Your task to perform on an android device: turn on location history Image 0: 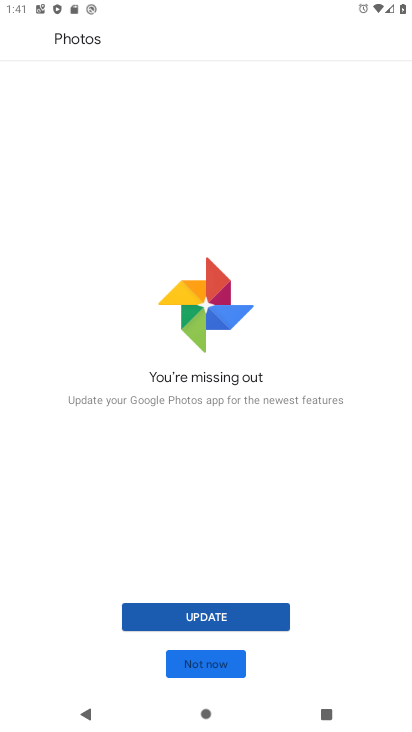
Step 0: press home button
Your task to perform on an android device: turn on location history Image 1: 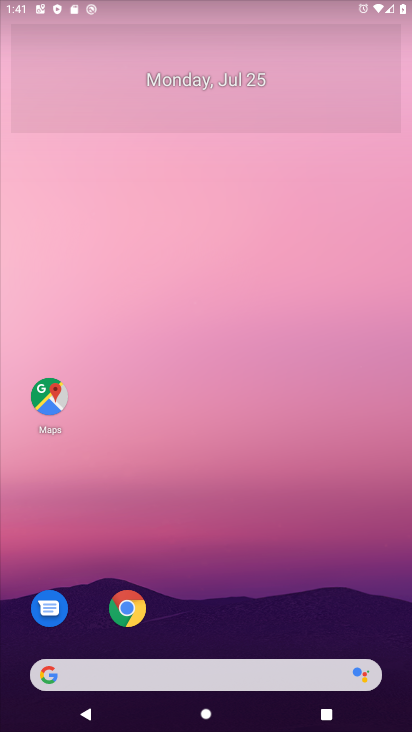
Step 1: drag from (330, 601) to (295, 28)
Your task to perform on an android device: turn on location history Image 2: 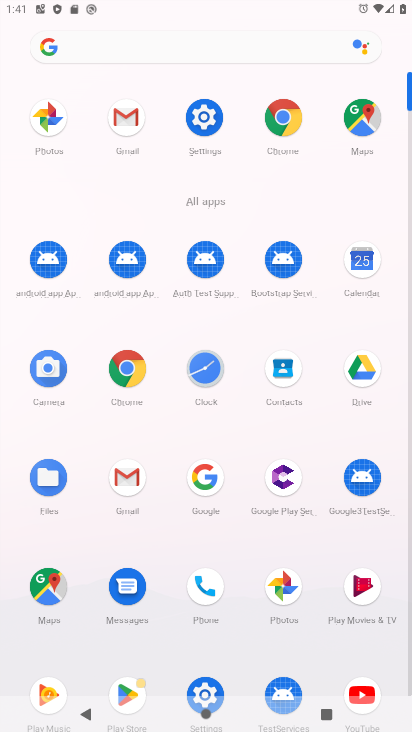
Step 2: click (202, 119)
Your task to perform on an android device: turn on location history Image 3: 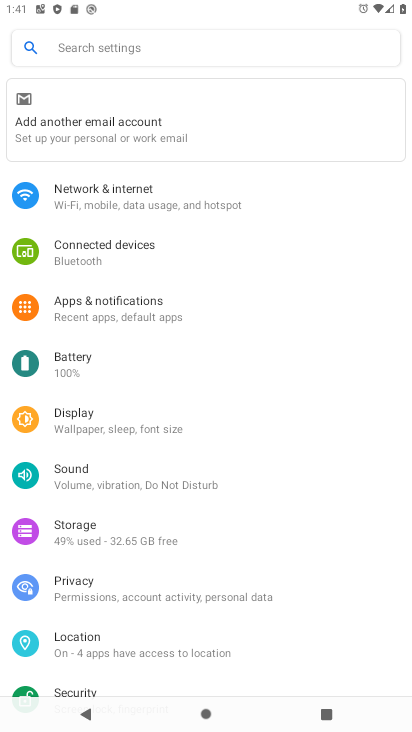
Step 3: click (161, 644)
Your task to perform on an android device: turn on location history Image 4: 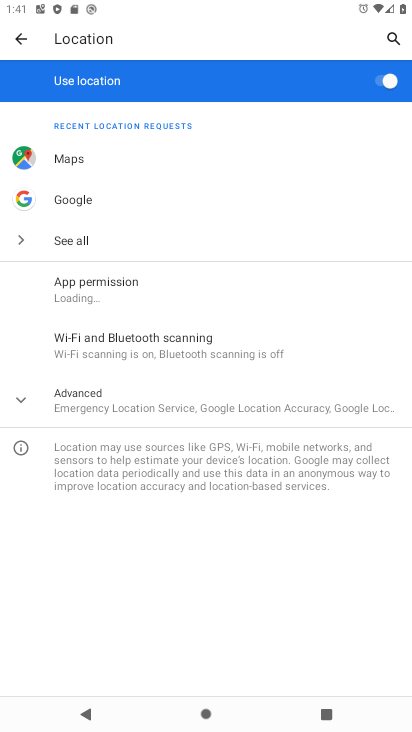
Step 4: click (113, 404)
Your task to perform on an android device: turn on location history Image 5: 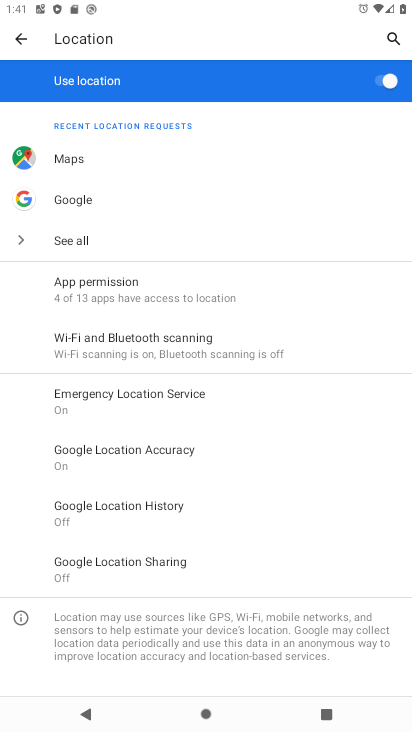
Step 5: click (161, 503)
Your task to perform on an android device: turn on location history Image 6: 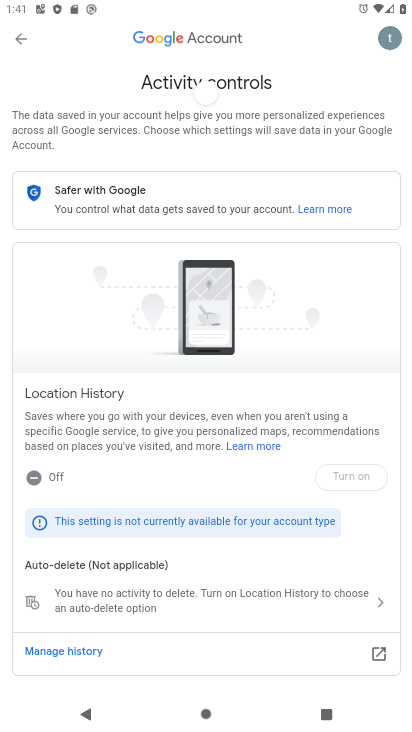
Step 6: click (345, 476)
Your task to perform on an android device: turn on location history Image 7: 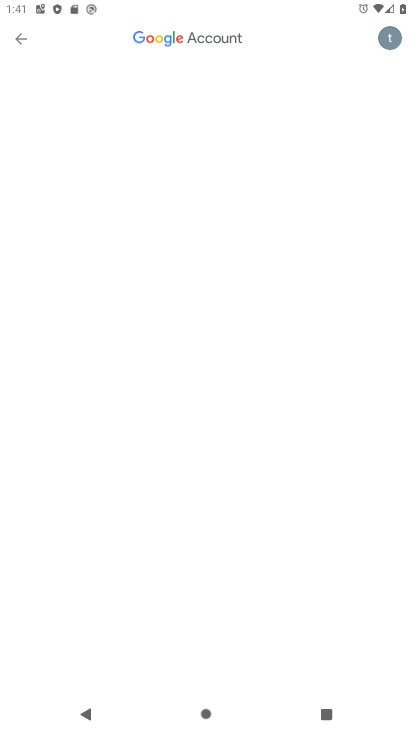
Step 7: click (344, 475)
Your task to perform on an android device: turn on location history Image 8: 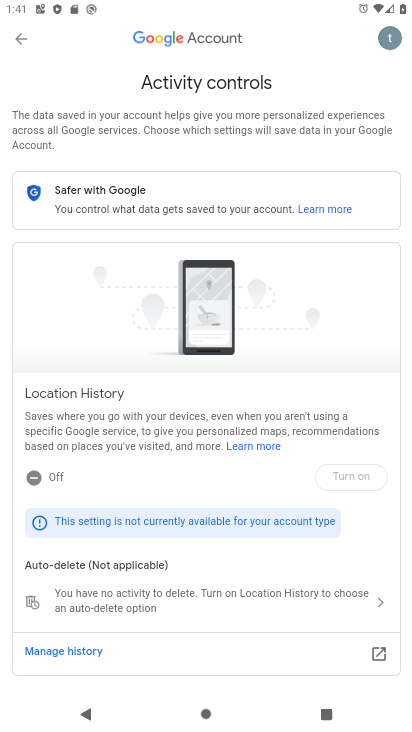
Step 8: click (377, 478)
Your task to perform on an android device: turn on location history Image 9: 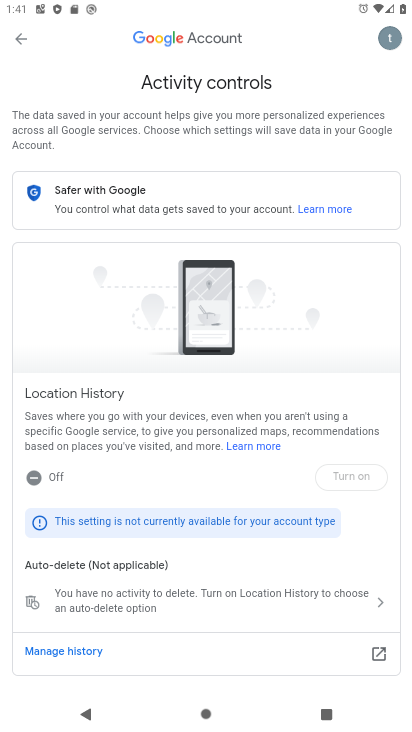
Step 9: task complete